Your task to perform on an android device: uninstall "Truecaller" Image 0: 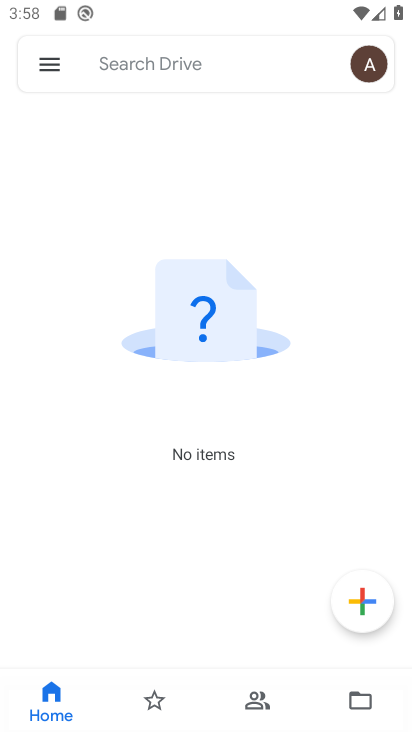
Step 0: press home button
Your task to perform on an android device: uninstall "Truecaller" Image 1: 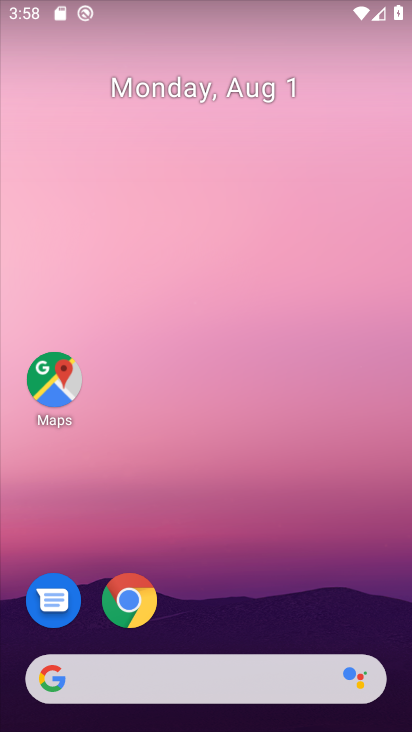
Step 1: drag from (270, 510) to (208, 0)
Your task to perform on an android device: uninstall "Truecaller" Image 2: 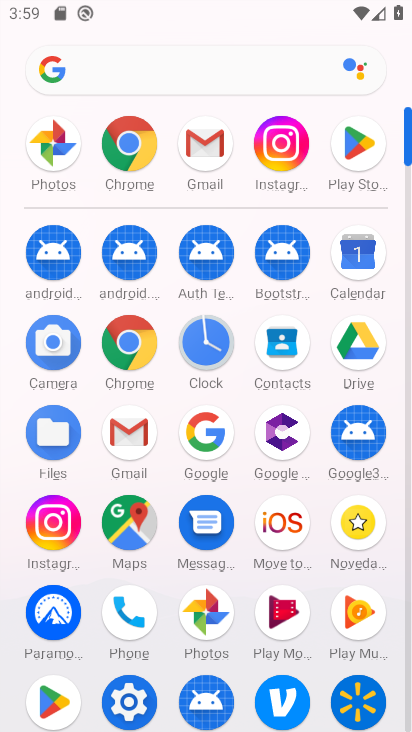
Step 2: click (347, 143)
Your task to perform on an android device: uninstall "Truecaller" Image 3: 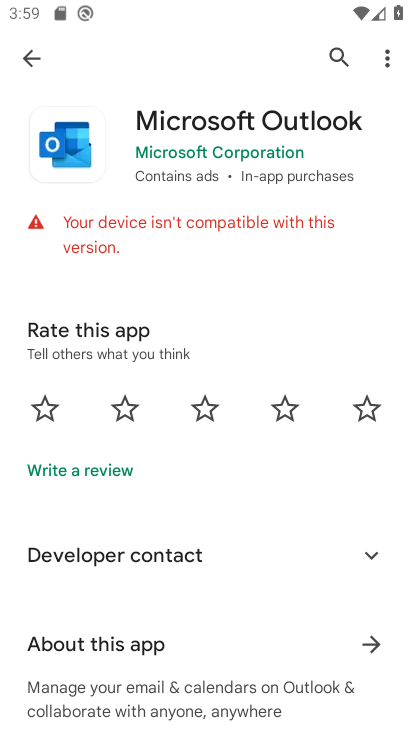
Step 3: click (329, 56)
Your task to perform on an android device: uninstall "Truecaller" Image 4: 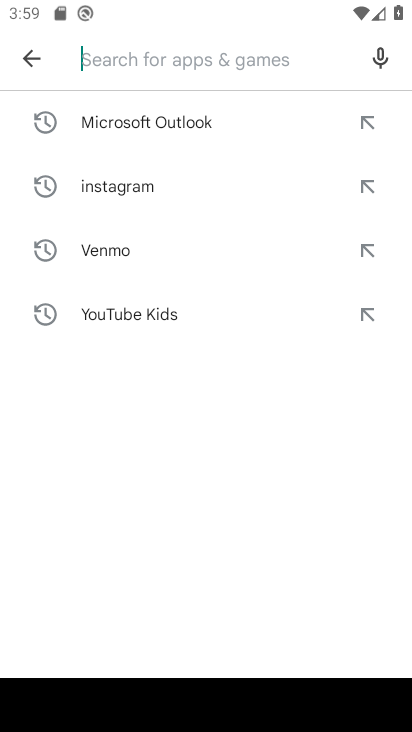
Step 4: type "Ttruecaller"
Your task to perform on an android device: uninstall "Truecaller" Image 5: 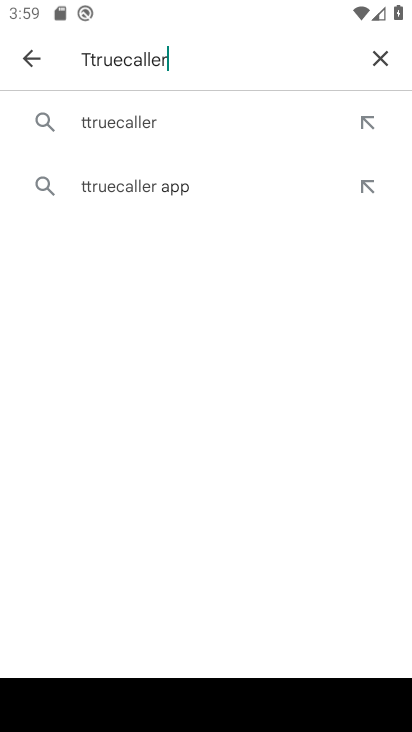
Step 5: click (194, 126)
Your task to perform on an android device: uninstall "Truecaller" Image 6: 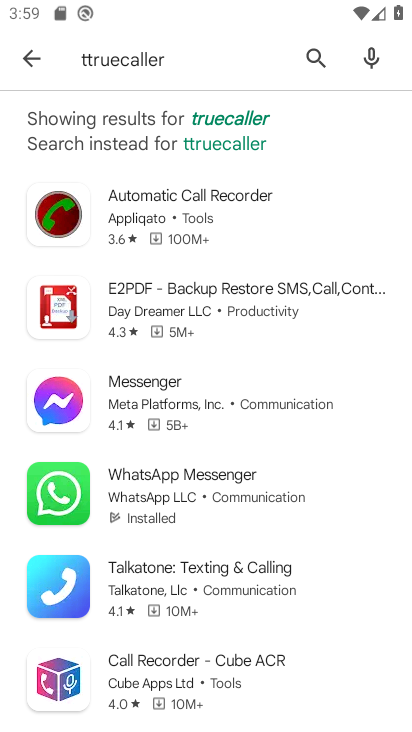
Step 6: click (201, 119)
Your task to perform on an android device: uninstall "Truecaller" Image 7: 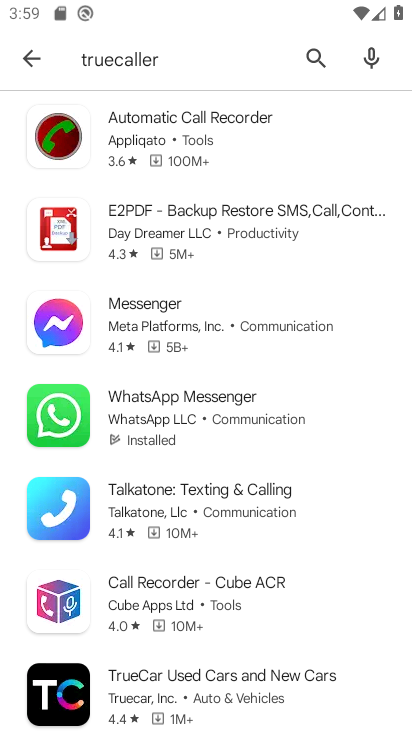
Step 7: task complete